Your task to perform on an android device: Search for seafood restaurants on Google Maps Image 0: 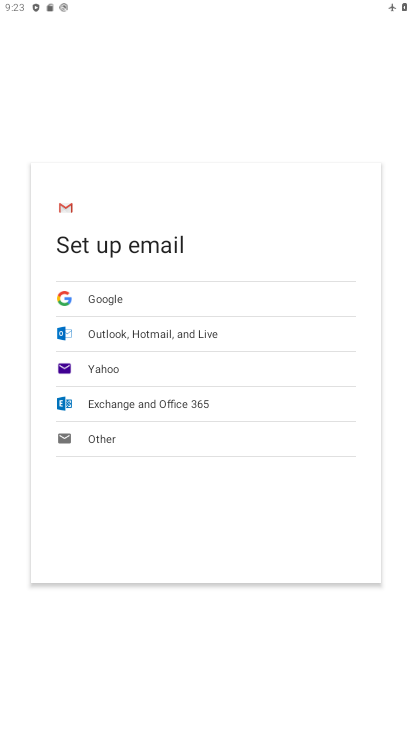
Step 0: press home button
Your task to perform on an android device: Search for seafood restaurants on Google Maps Image 1: 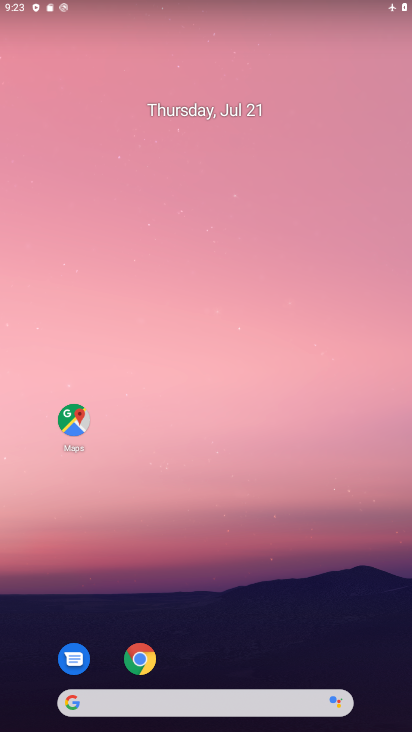
Step 1: drag from (190, 674) to (328, 33)
Your task to perform on an android device: Search for seafood restaurants on Google Maps Image 2: 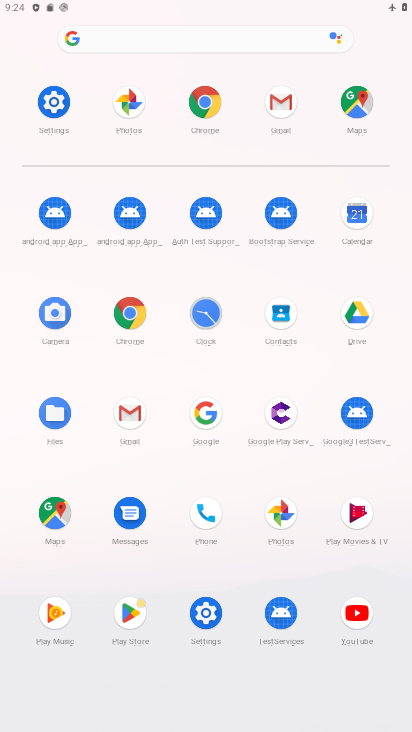
Step 2: click (53, 497)
Your task to perform on an android device: Search for seafood restaurants on Google Maps Image 3: 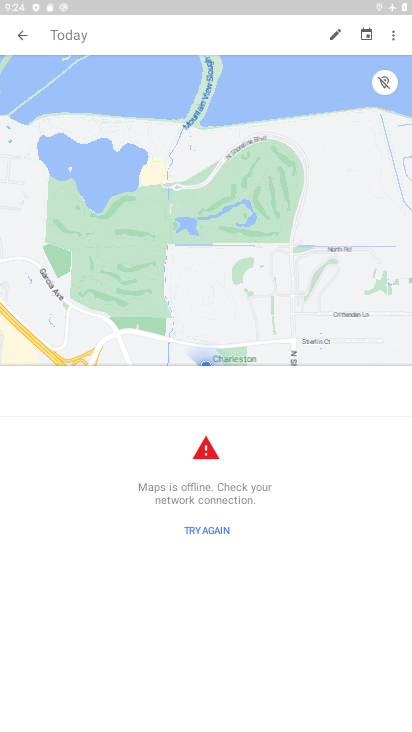
Step 3: click (18, 33)
Your task to perform on an android device: Search for seafood restaurants on Google Maps Image 4: 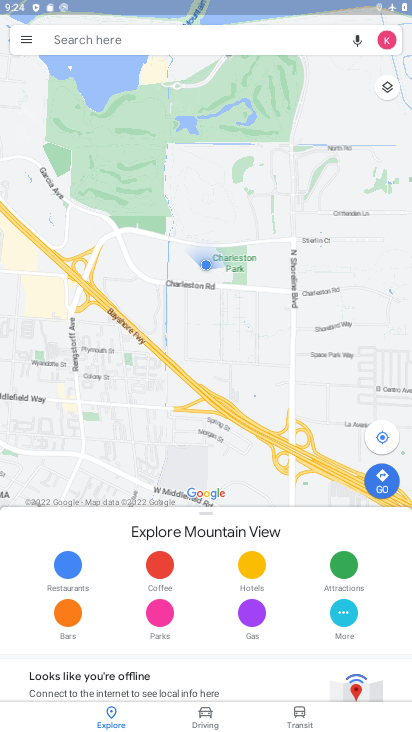
Step 4: click (133, 42)
Your task to perform on an android device: Search for seafood restaurants on Google Maps Image 5: 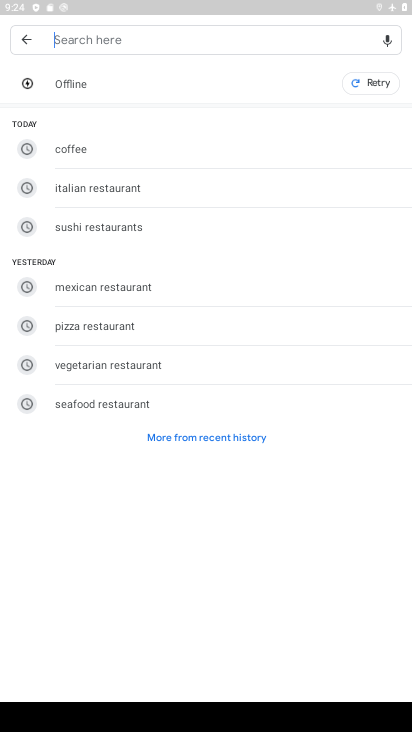
Step 5: click (86, 412)
Your task to perform on an android device: Search for seafood restaurants on Google Maps Image 6: 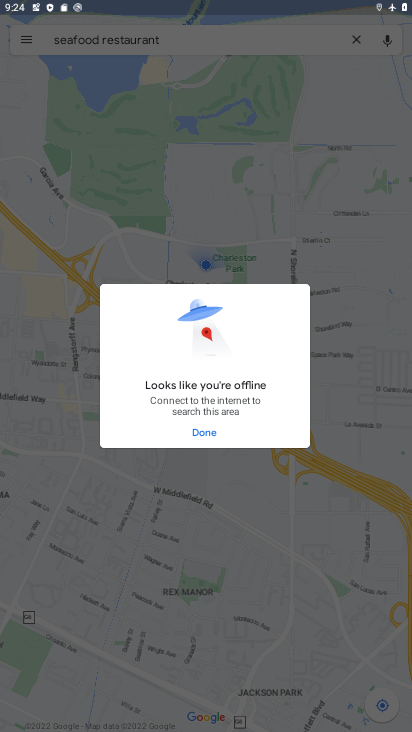
Step 6: click (197, 434)
Your task to perform on an android device: Search for seafood restaurants on Google Maps Image 7: 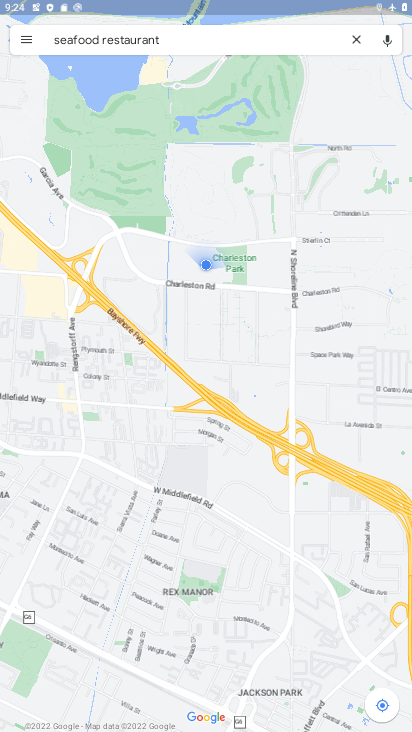
Step 7: task complete